Your task to perform on an android device: Go to Yahoo.com Image 0: 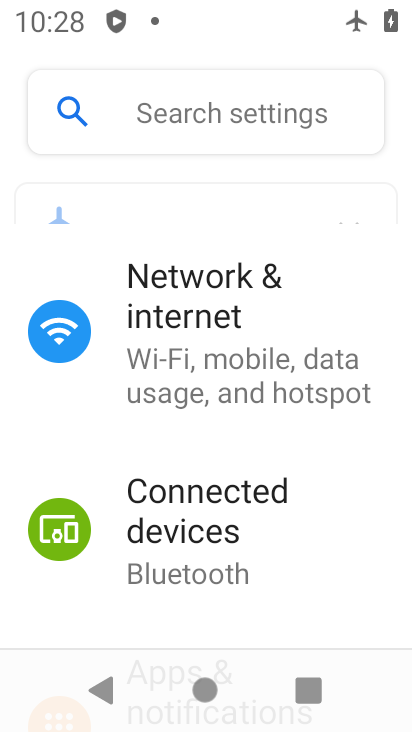
Step 0: press home button
Your task to perform on an android device: Go to Yahoo.com Image 1: 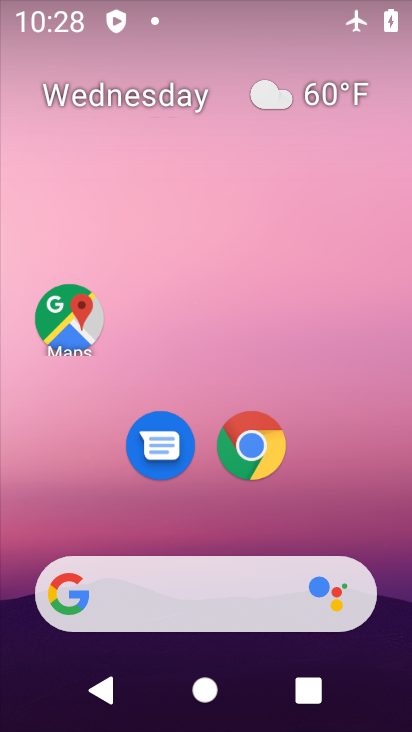
Step 1: click (158, 593)
Your task to perform on an android device: Go to Yahoo.com Image 2: 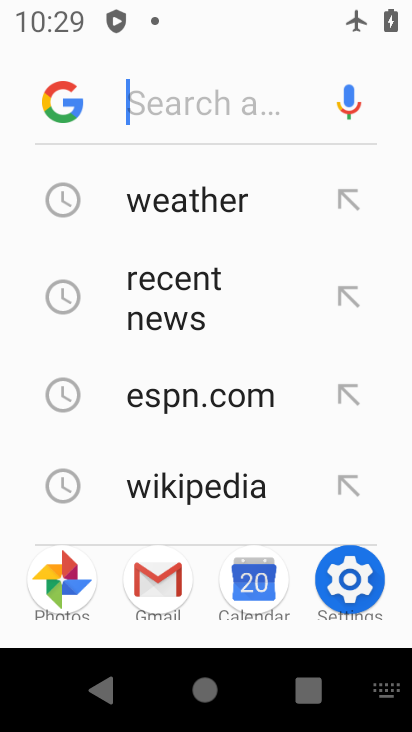
Step 2: type "Yahoo.com"
Your task to perform on an android device: Go to Yahoo.com Image 3: 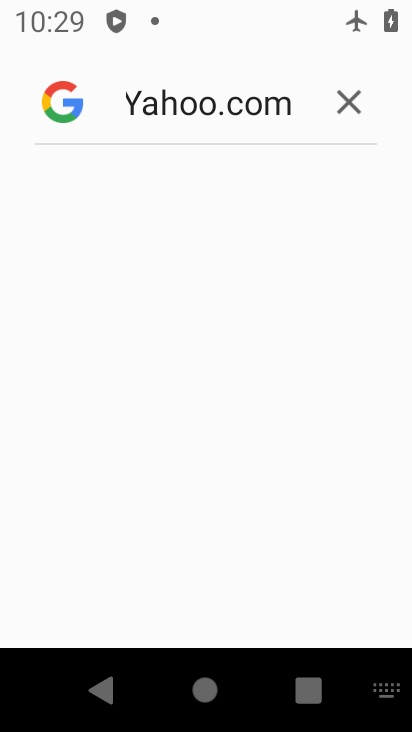
Step 3: task complete